Your task to perform on an android device: check out phone information Image 0: 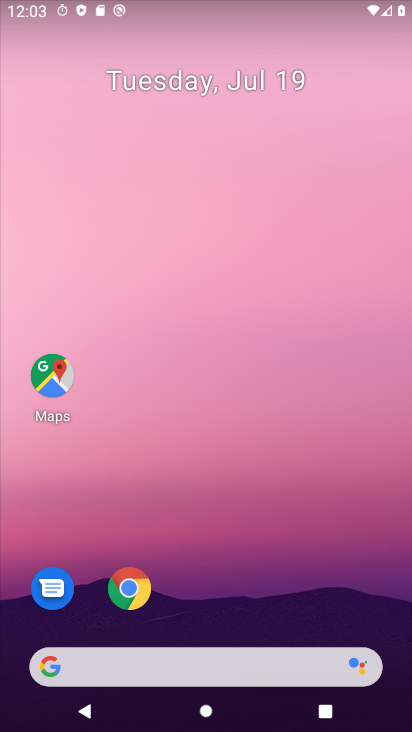
Step 0: click (204, 150)
Your task to perform on an android device: check out phone information Image 1: 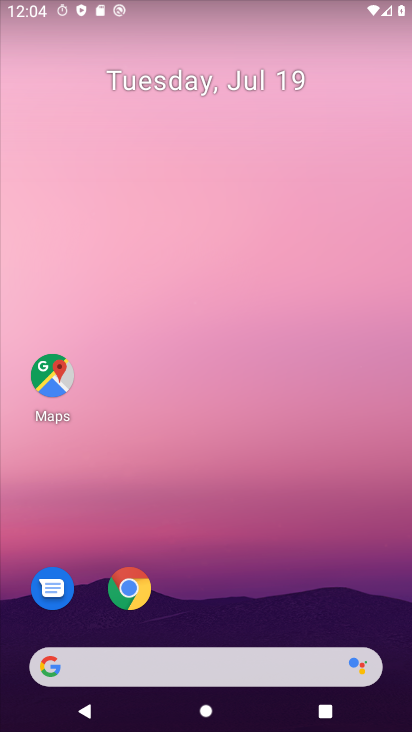
Step 1: drag from (232, 631) to (146, 70)
Your task to perform on an android device: check out phone information Image 2: 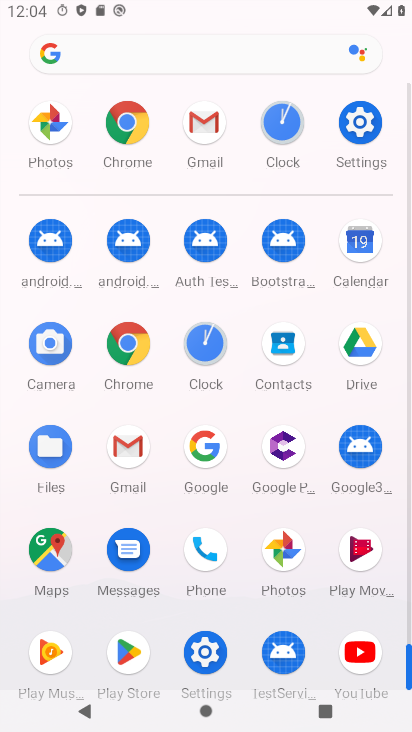
Step 2: drag from (232, 533) to (191, 116)
Your task to perform on an android device: check out phone information Image 3: 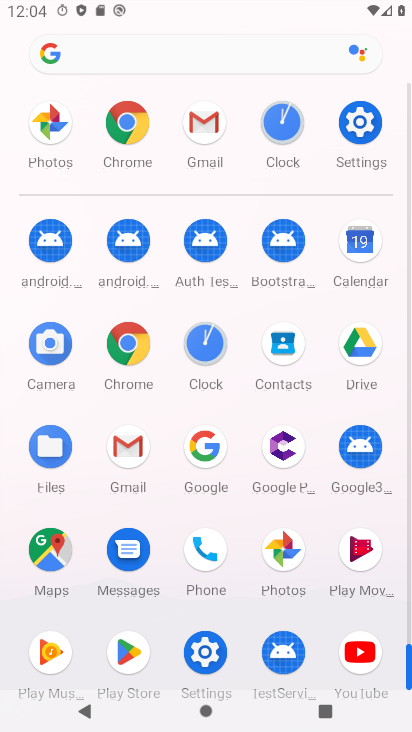
Step 3: drag from (207, 508) to (142, 117)
Your task to perform on an android device: check out phone information Image 4: 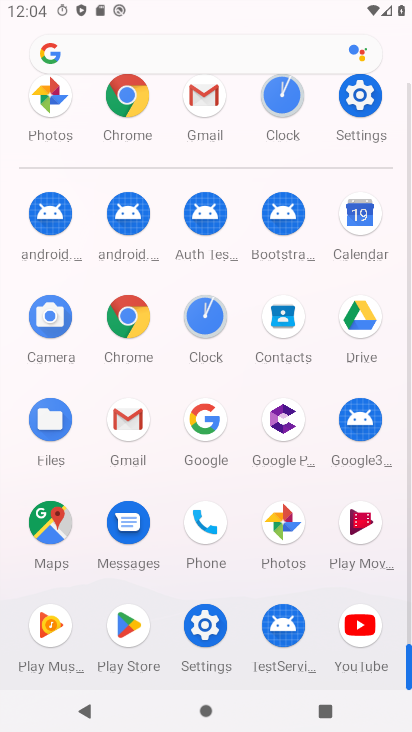
Step 4: click (361, 98)
Your task to perform on an android device: check out phone information Image 5: 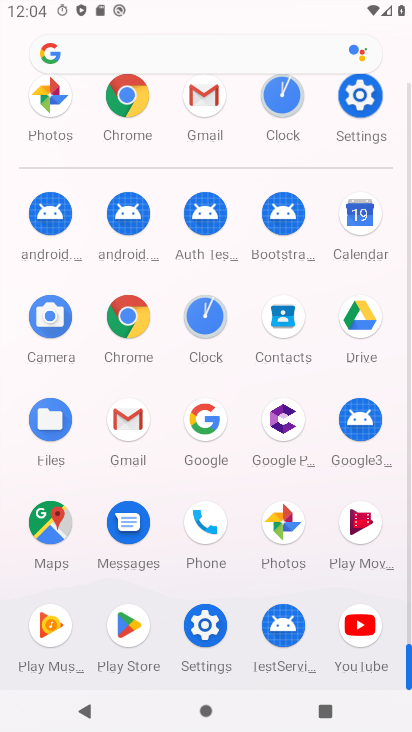
Step 5: click (361, 98)
Your task to perform on an android device: check out phone information Image 6: 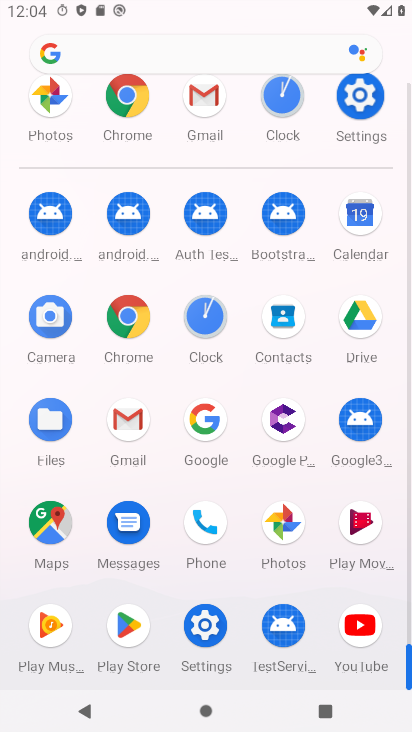
Step 6: click (362, 102)
Your task to perform on an android device: check out phone information Image 7: 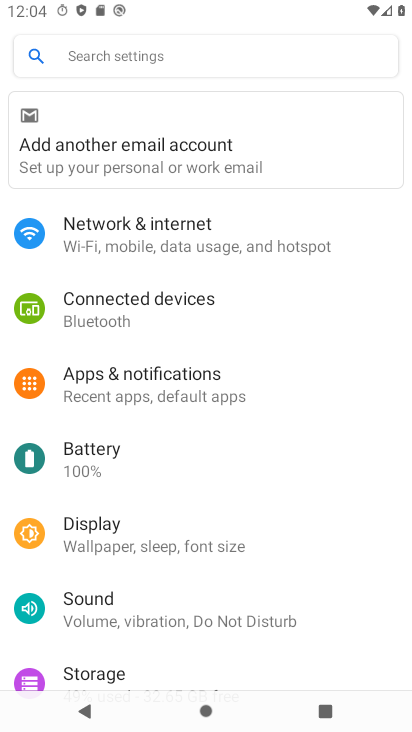
Step 7: drag from (161, 415) to (153, 266)
Your task to perform on an android device: check out phone information Image 8: 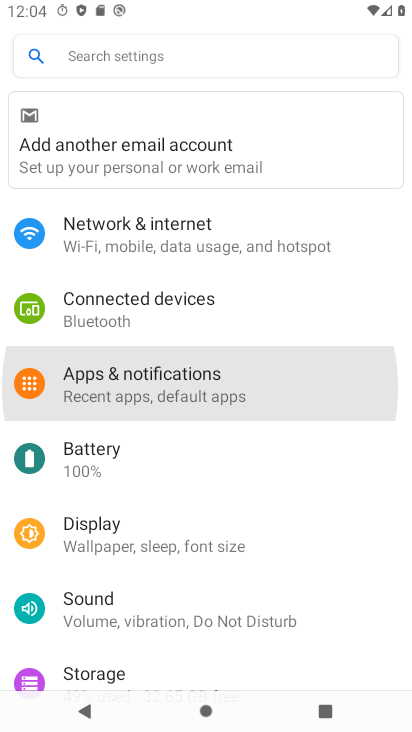
Step 8: drag from (141, 454) to (136, 331)
Your task to perform on an android device: check out phone information Image 9: 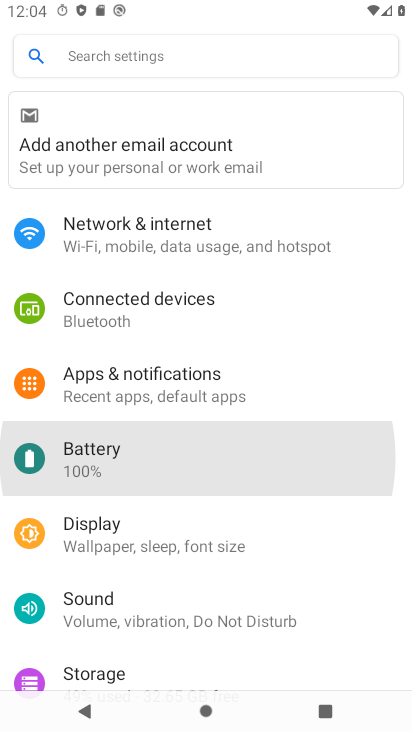
Step 9: drag from (148, 503) to (175, 279)
Your task to perform on an android device: check out phone information Image 10: 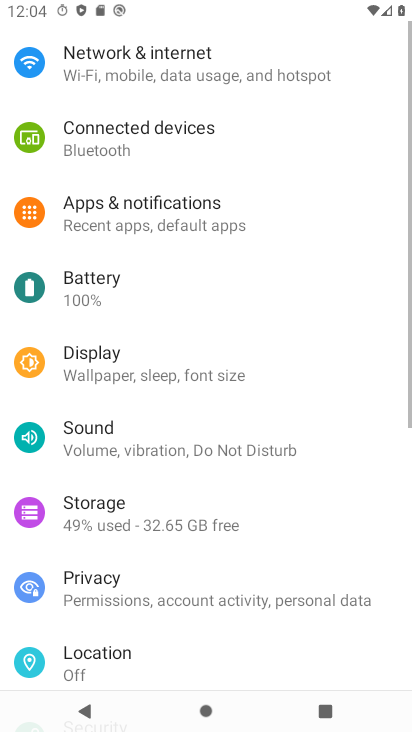
Step 10: click (154, 398)
Your task to perform on an android device: check out phone information Image 11: 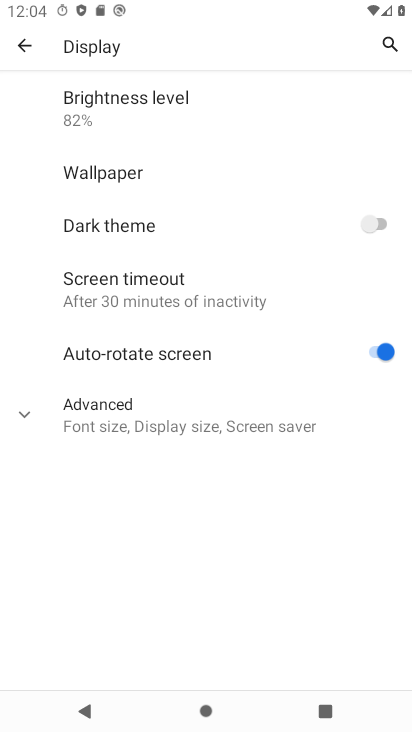
Step 11: click (35, 57)
Your task to perform on an android device: check out phone information Image 12: 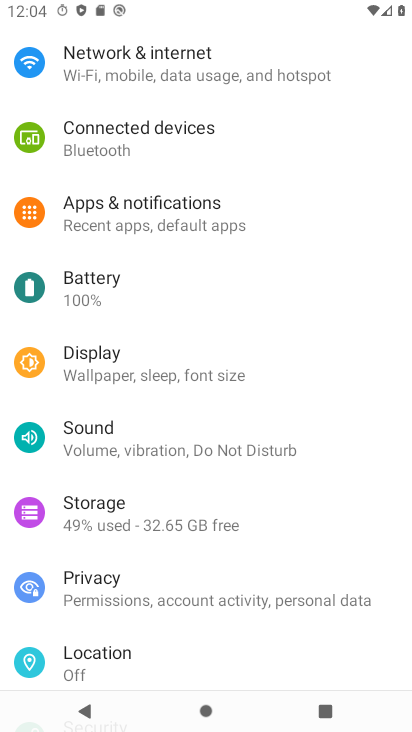
Step 12: drag from (95, 480) to (123, 185)
Your task to perform on an android device: check out phone information Image 13: 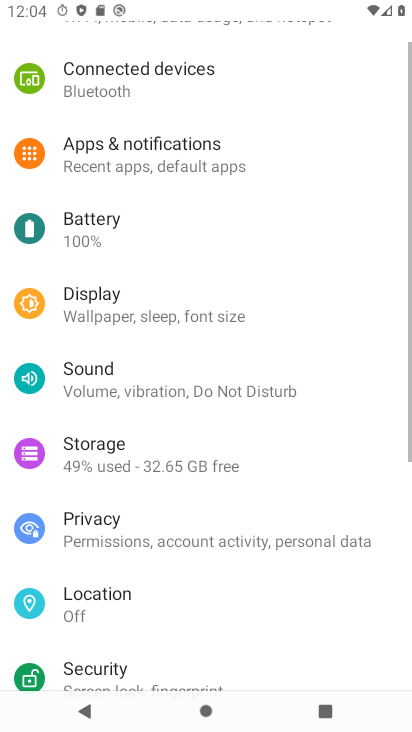
Step 13: drag from (106, 527) to (129, 162)
Your task to perform on an android device: check out phone information Image 14: 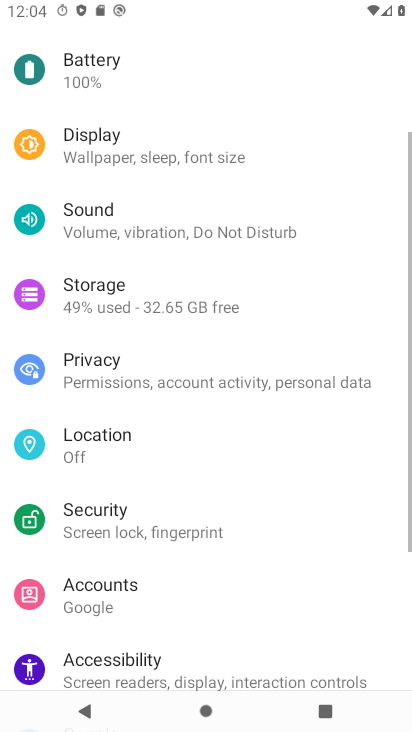
Step 14: drag from (179, 232) to (170, 191)
Your task to perform on an android device: check out phone information Image 15: 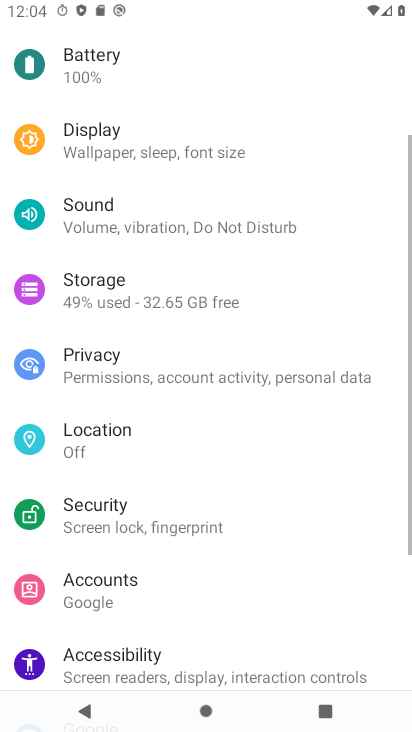
Step 15: drag from (135, 382) to (135, 181)
Your task to perform on an android device: check out phone information Image 16: 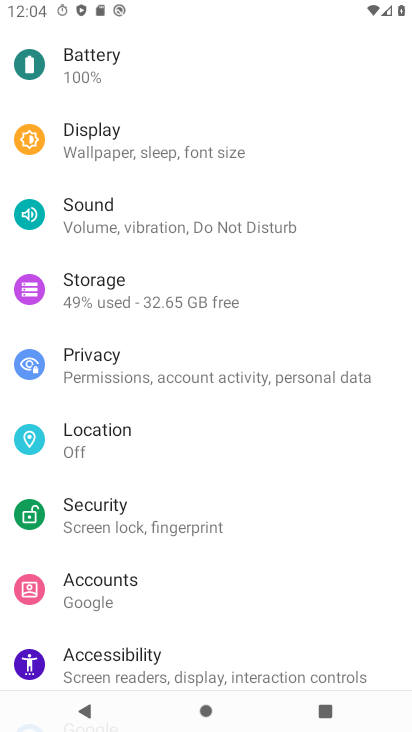
Step 16: drag from (158, 392) to (147, 198)
Your task to perform on an android device: check out phone information Image 17: 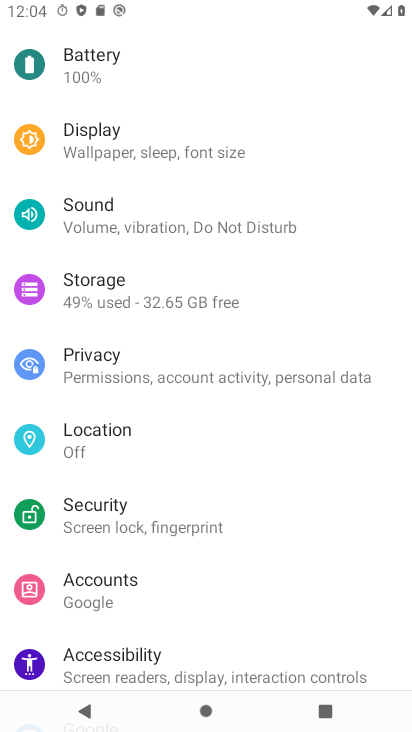
Step 17: click (164, 208)
Your task to perform on an android device: check out phone information Image 18: 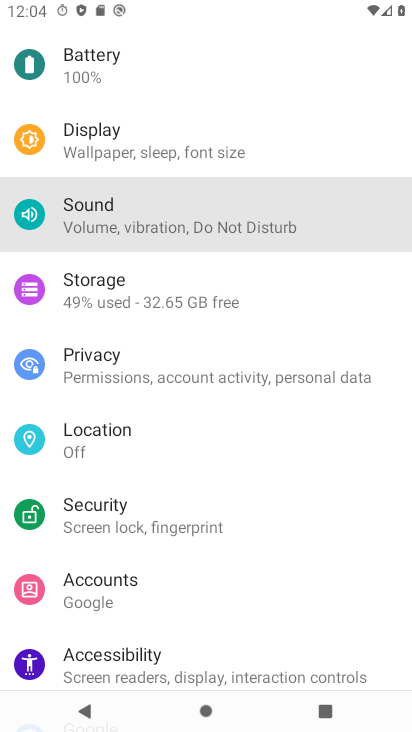
Step 18: drag from (152, 313) to (136, 193)
Your task to perform on an android device: check out phone information Image 19: 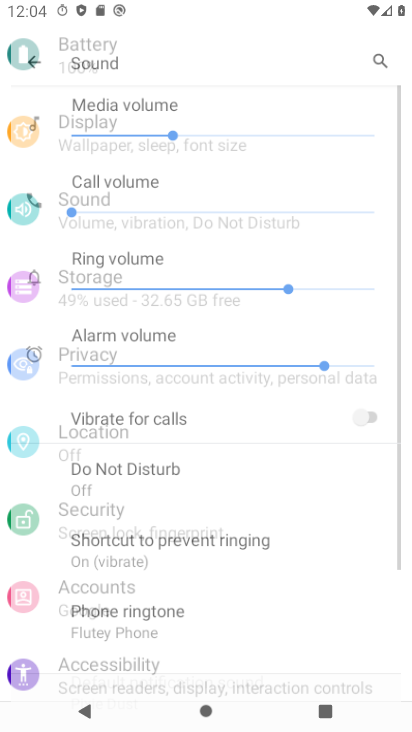
Step 19: drag from (114, 323) to (108, 281)
Your task to perform on an android device: check out phone information Image 20: 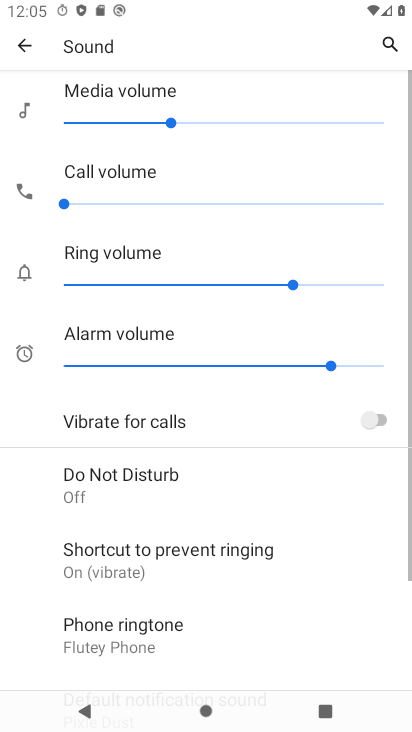
Step 20: drag from (102, 613) to (102, 273)
Your task to perform on an android device: check out phone information Image 21: 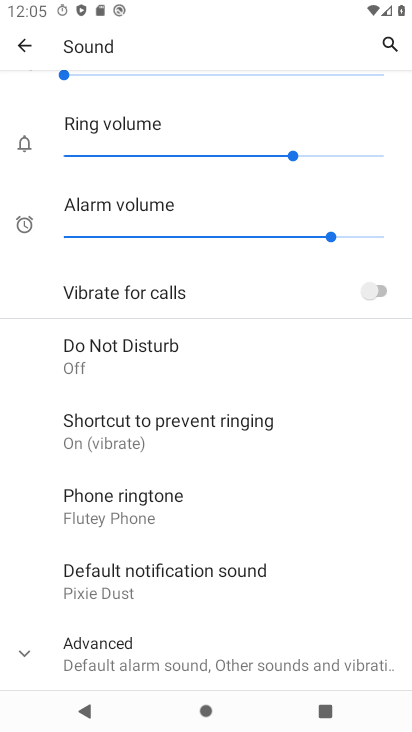
Step 21: drag from (101, 526) to (101, 262)
Your task to perform on an android device: check out phone information Image 22: 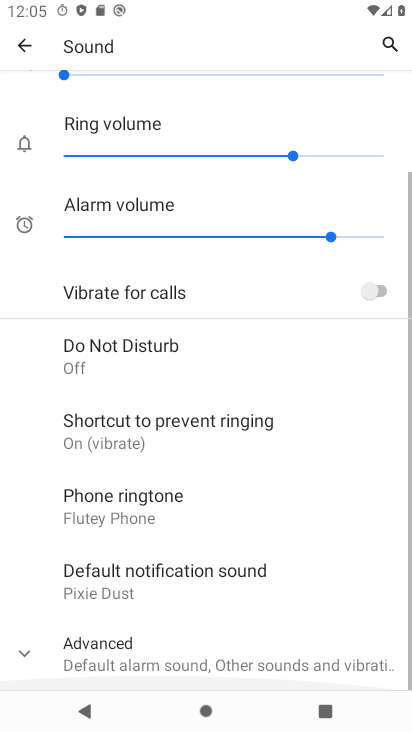
Step 22: click (28, 50)
Your task to perform on an android device: check out phone information Image 23: 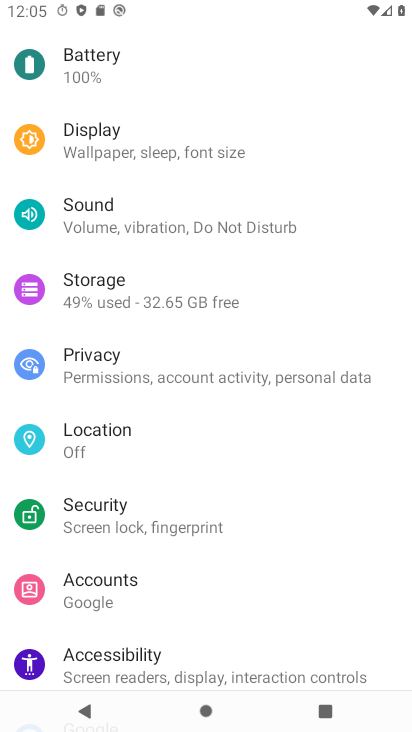
Step 23: drag from (107, 600) to (83, 293)
Your task to perform on an android device: check out phone information Image 24: 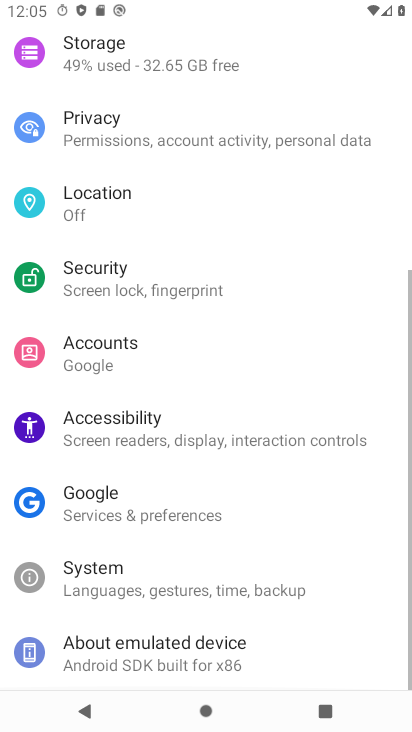
Step 24: drag from (94, 511) to (98, 237)
Your task to perform on an android device: check out phone information Image 25: 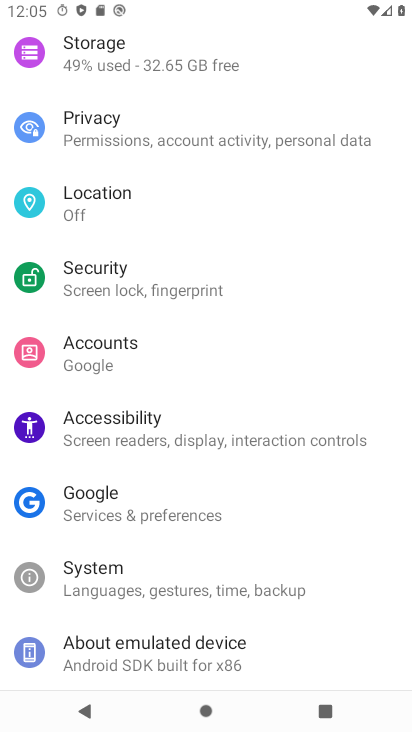
Step 25: click (145, 646)
Your task to perform on an android device: check out phone information Image 26: 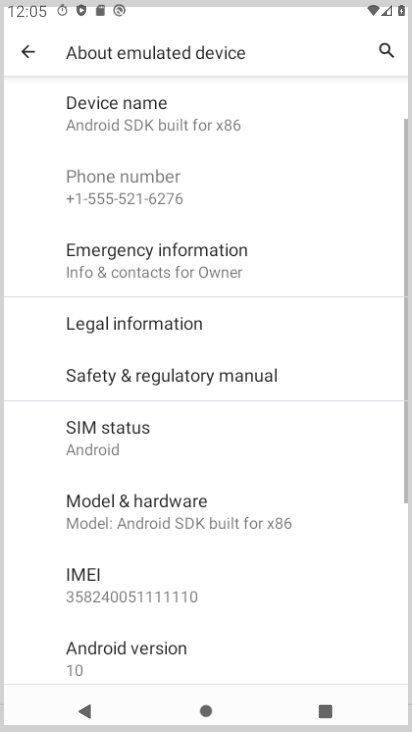
Step 26: click (146, 650)
Your task to perform on an android device: check out phone information Image 27: 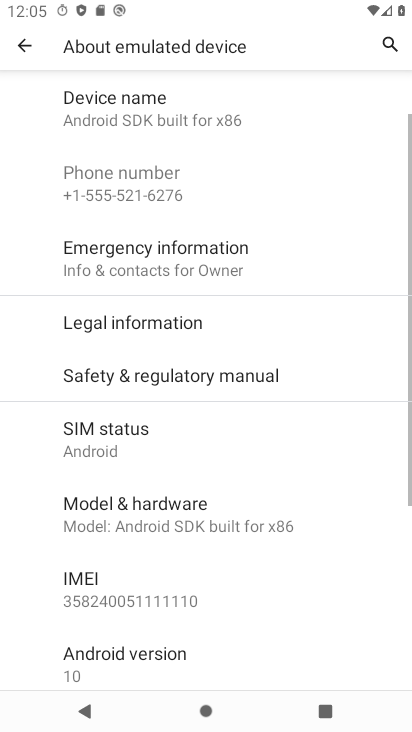
Step 27: click (147, 652)
Your task to perform on an android device: check out phone information Image 28: 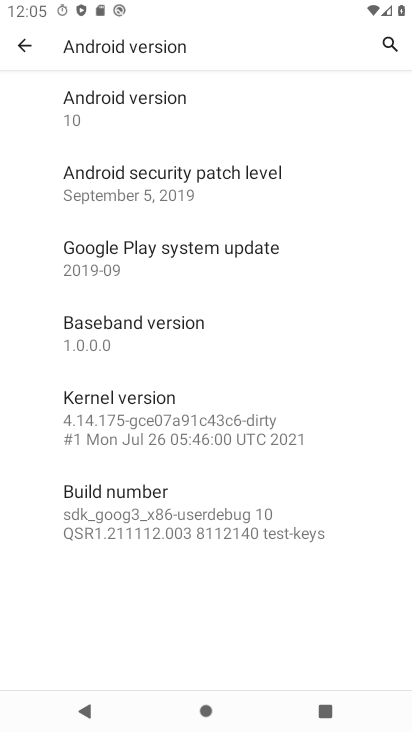
Step 28: task complete